Your task to perform on an android device: open a bookmark in the chrome app Image 0: 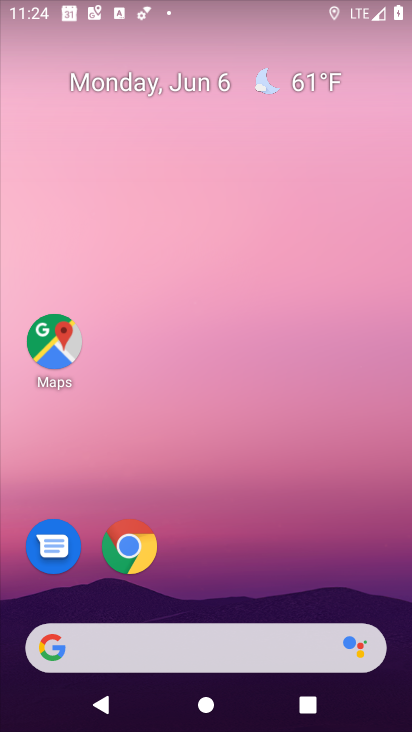
Step 0: click (131, 545)
Your task to perform on an android device: open a bookmark in the chrome app Image 1: 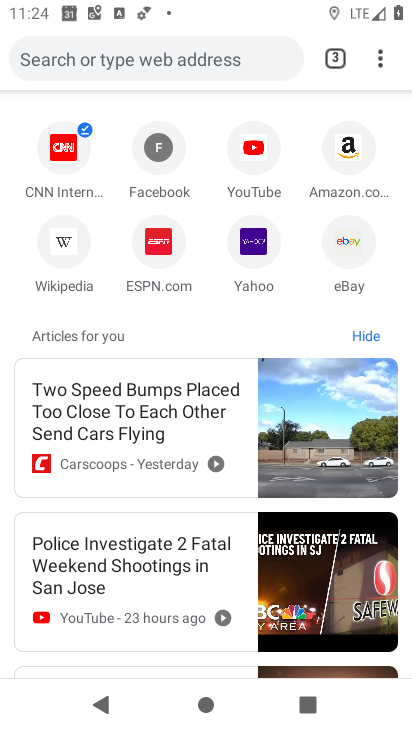
Step 1: click (380, 65)
Your task to perform on an android device: open a bookmark in the chrome app Image 2: 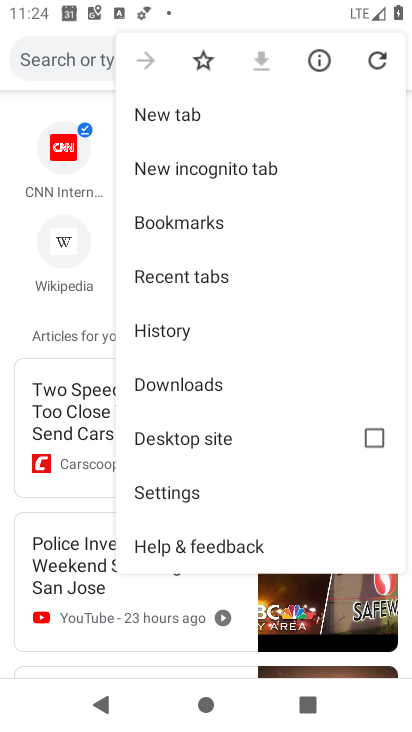
Step 2: click (168, 216)
Your task to perform on an android device: open a bookmark in the chrome app Image 3: 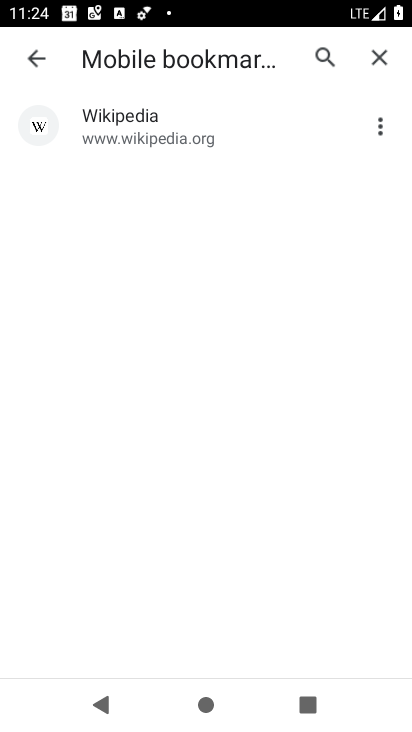
Step 3: task complete